Your task to perform on an android device: toggle show notifications on the lock screen Image 0: 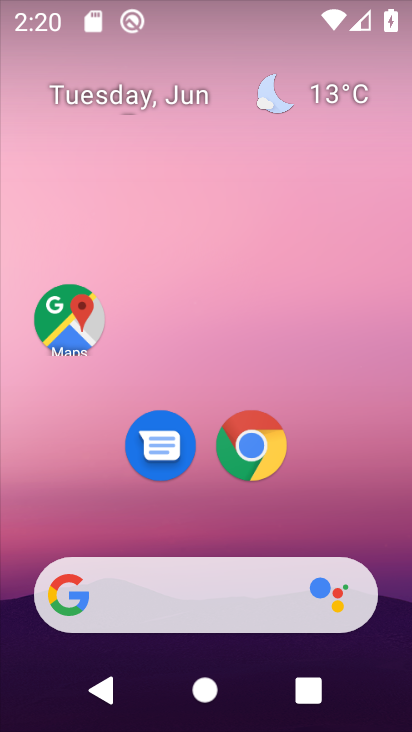
Step 0: drag from (250, 576) to (409, 96)
Your task to perform on an android device: toggle show notifications on the lock screen Image 1: 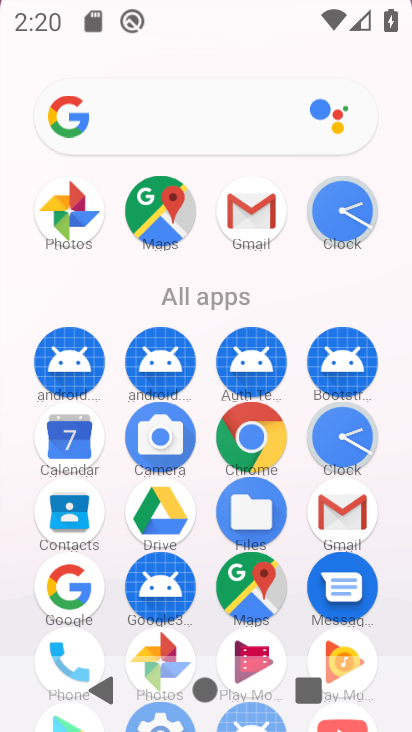
Step 1: drag from (265, 628) to (328, 13)
Your task to perform on an android device: toggle show notifications on the lock screen Image 2: 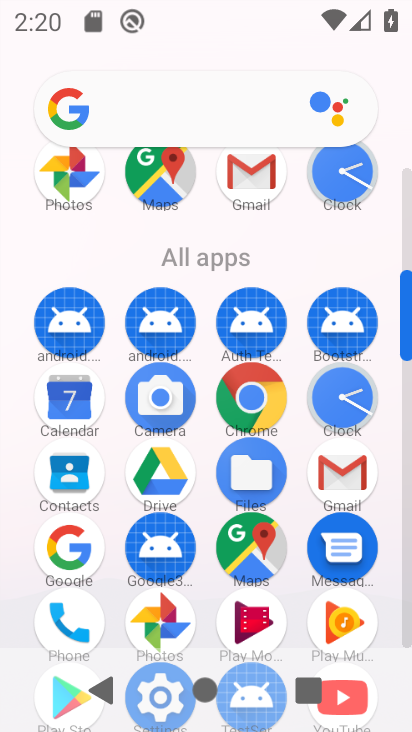
Step 2: drag from (344, 431) to (385, 101)
Your task to perform on an android device: toggle show notifications on the lock screen Image 3: 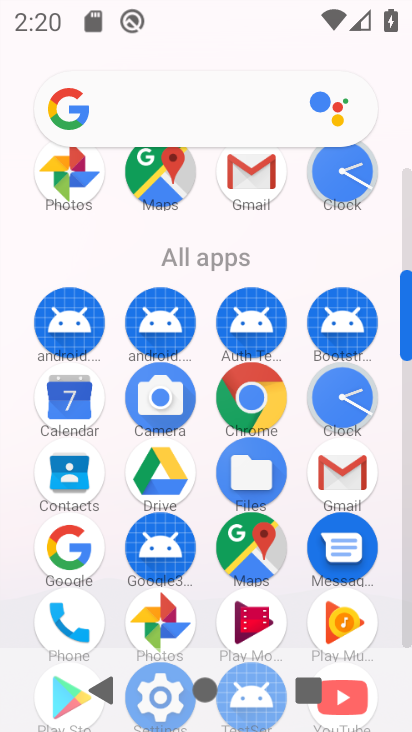
Step 3: drag from (287, 138) to (327, 37)
Your task to perform on an android device: toggle show notifications on the lock screen Image 4: 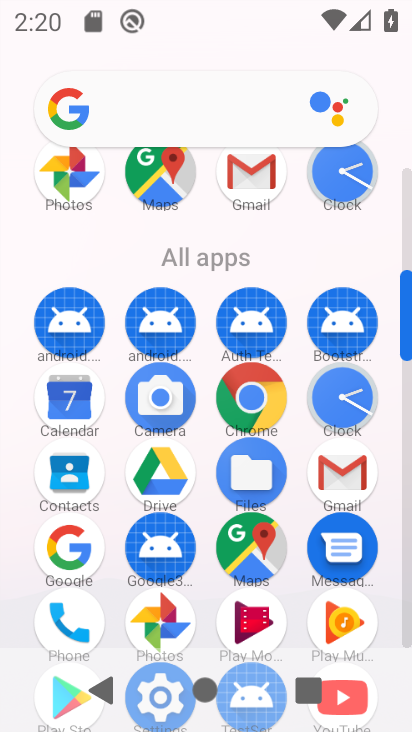
Step 4: click (157, 671)
Your task to perform on an android device: toggle show notifications on the lock screen Image 5: 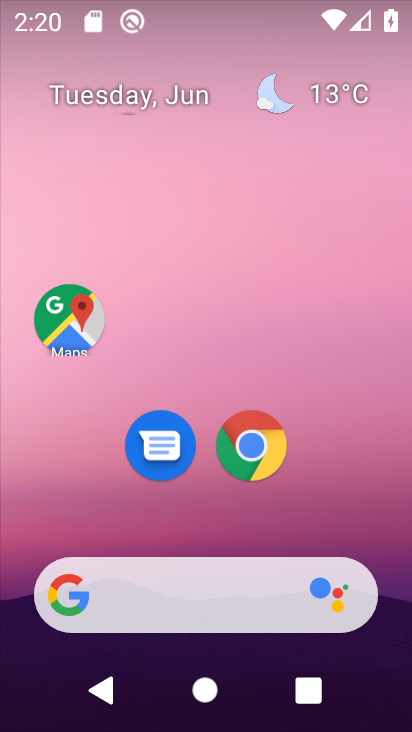
Step 5: drag from (247, 693) to (226, 16)
Your task to perform on an android device: toggle show notifications on the lock screen Image 6: 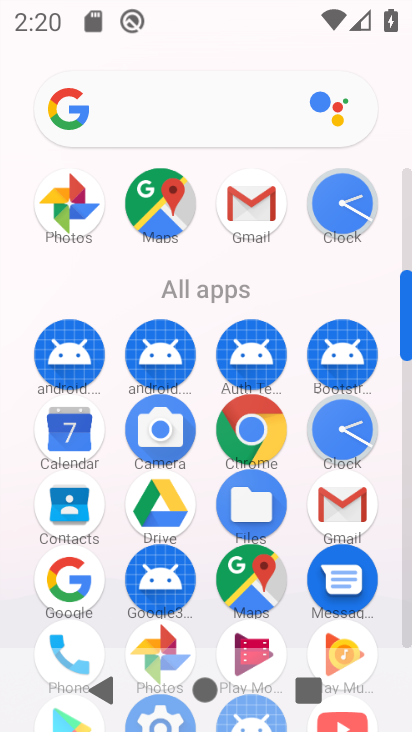
Step 6: drag from (304, 408) to (376, 13)
Your task to perform on an android device: toggle show notifications on the lock screen Image 7: 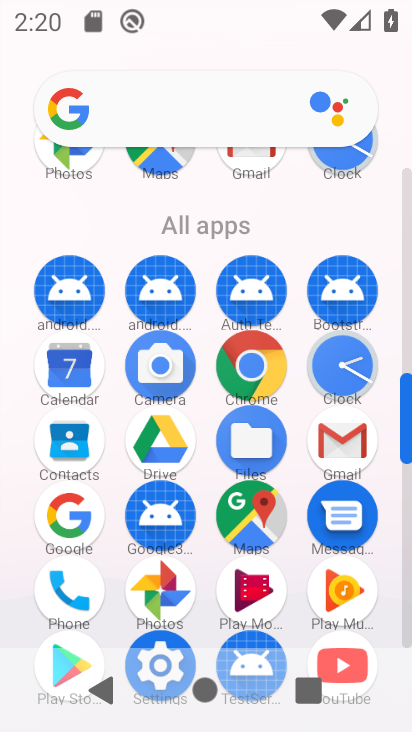
Step 7: click (166, 641)
Your task to perform on an android device: toggle show notifications on the lock screen Image 8: 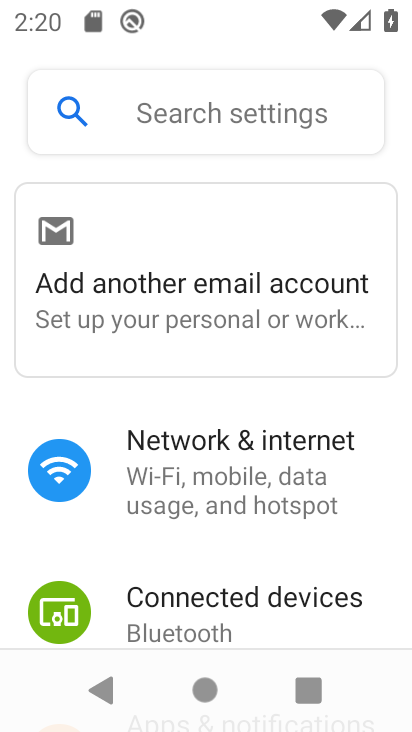
Step 8: drag from (273, 603) to (359, 158)
Your task to perform on an android device: toggle show notifications on the lock screen Image 9: 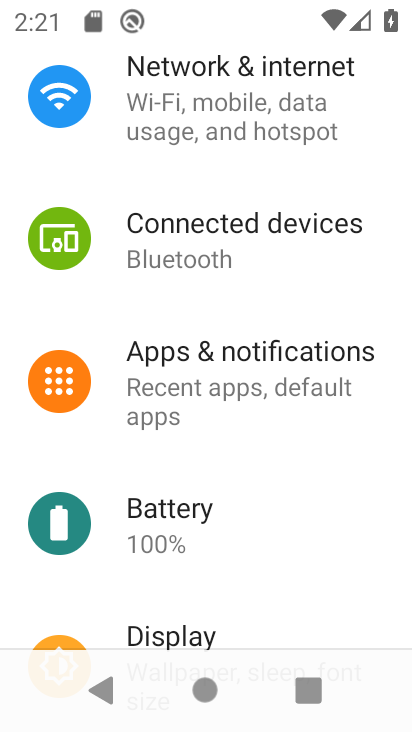
Step 9: click (272, 387)
Your task to perform on an android device: toggle show notifications on the lock screen Image 10: 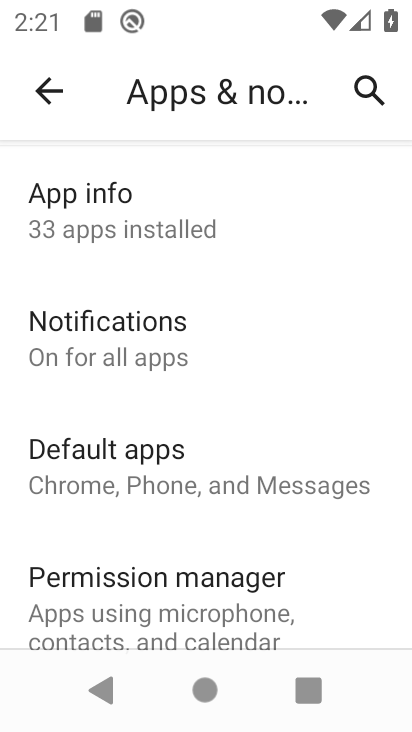
Step 10: drag from (390, 272) to (350, 541)
Your task to perform on an android device: toggle show notifications on the lock screen Image 11: 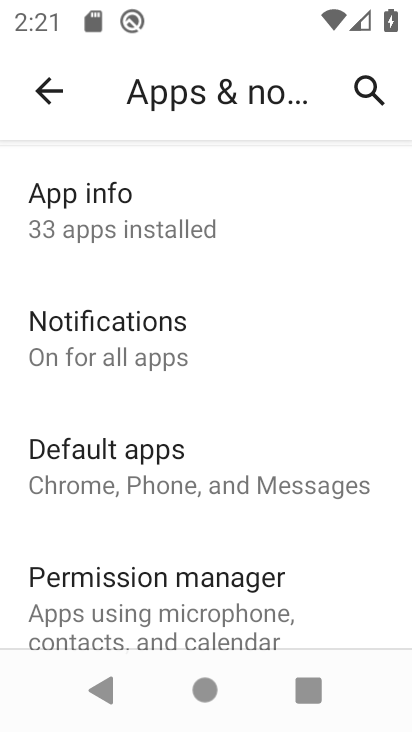
Step 11: drag from (242, 524) to (378, 23)
Your task to perform on an android device: toggle show notifications on the lock screen Image 12: 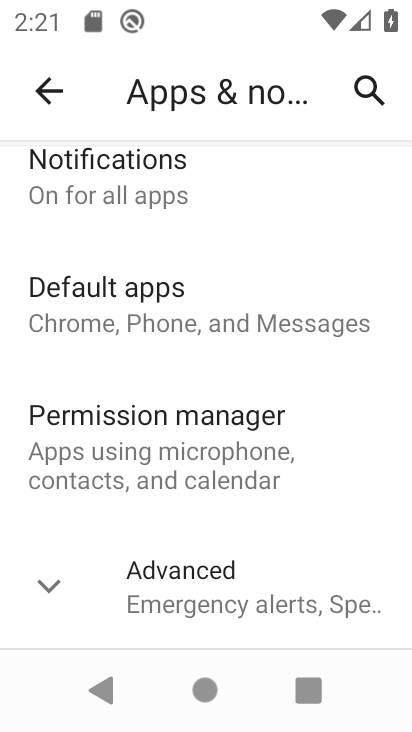
Step 12: click (300, 591)
Your task to perform on an android device: toggle show notifications on the lock screen Image 13: 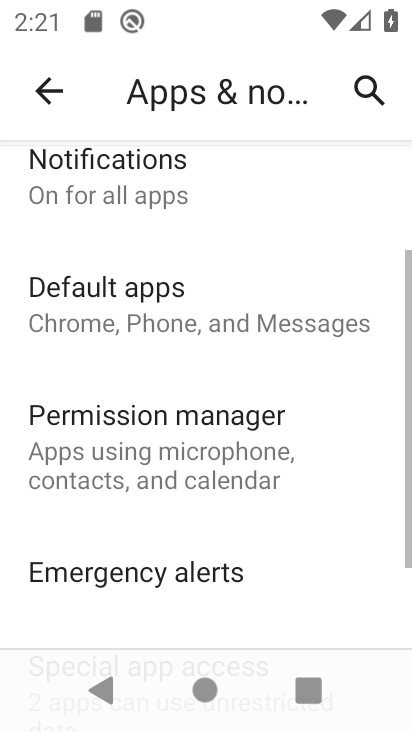
Step 13: drag from (306, 543) to (378, 6)
Your task to perform on an android device: toggle show notifications on the lock screen Image 14: 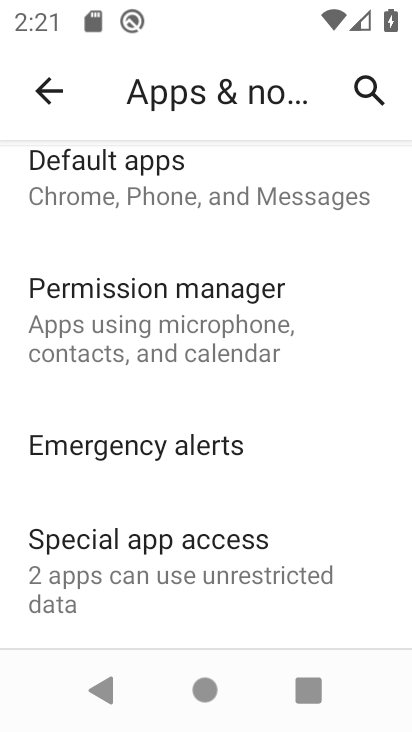
Step 14: drag from (290, 270) to (213, 730)
Your task to perform on an android device: toggle show notifications on the lock screen Image 15: 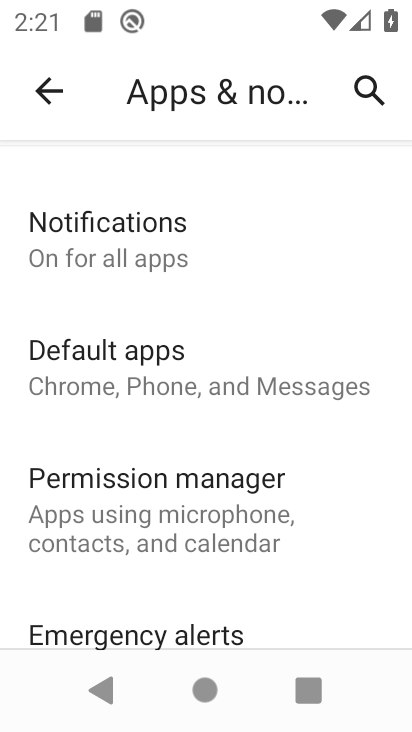
Step 15: click (219, 247)
Your task to perform on an android device: toggle show notifications on the lock screen Image 16: 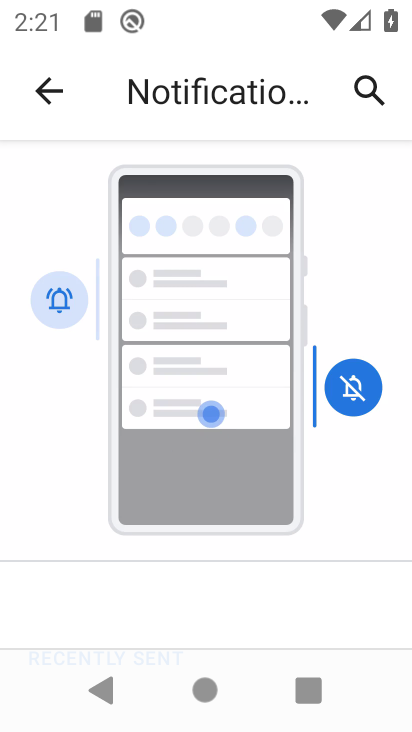
Step 16: drag from (255, 536) to (333, 10)
Your task to perform on an android device: toggle show notifications on the lock screen Image 17: 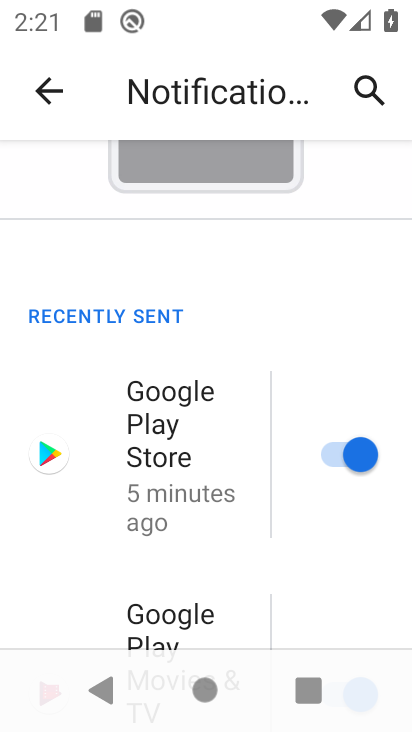
Step 17: drag from (226, 577) to (278, 33)
Your task to perform on an android device: toggle show notifications on the lock screen Image 18: 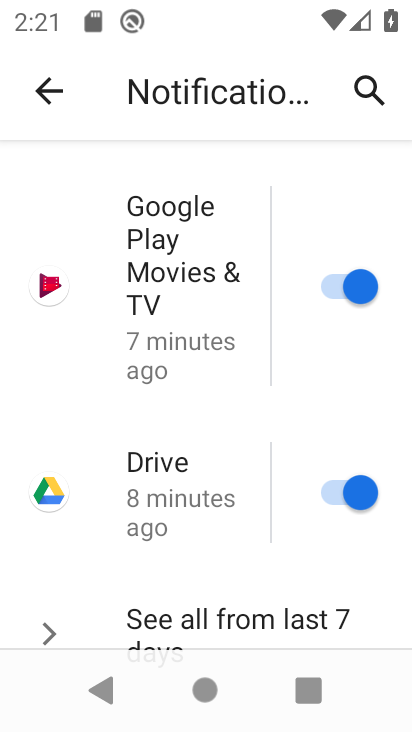
Step 18: drag from (277, 548) to (353, 22)
Your task to perform on an android device: toggle show notifications on the lock screen Image 19: 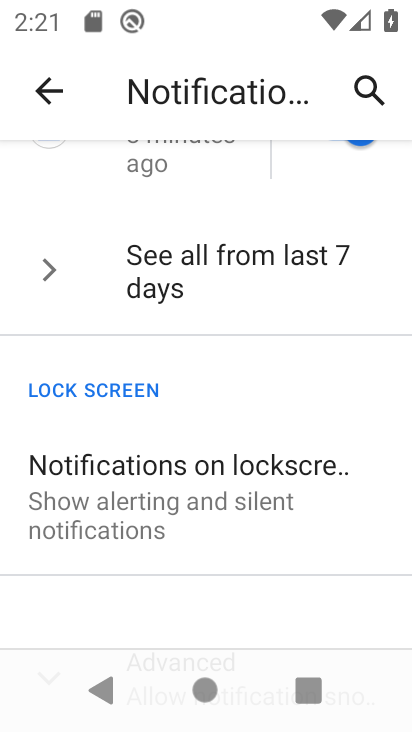
Step 19: click (242, 514)
Your task to perform on an android device: toggle show notifications on the lock screen Image 20: 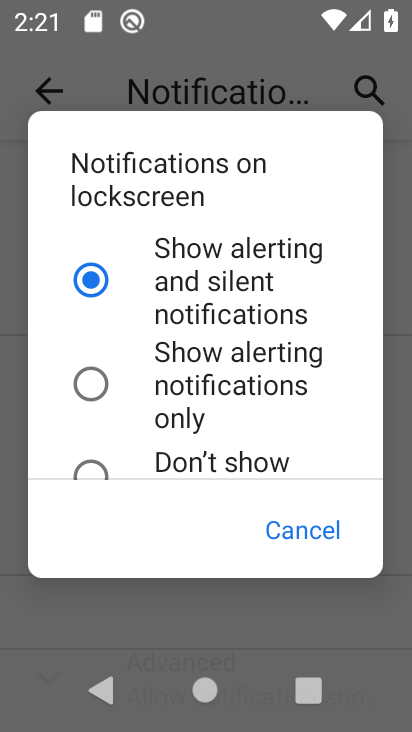
Step 20: drag from (249, 436) to (310, 86)
Your task to perform on an android device: toggle show notifications on the lock screen Image 21: 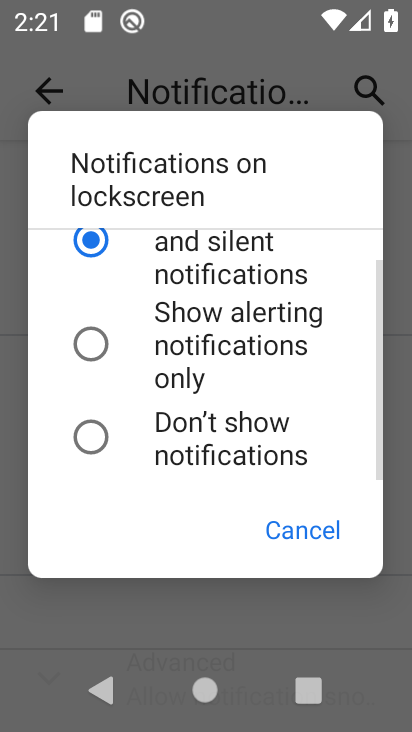
Step 21: click (203, 435)
Your task to perform on an android device: toggle show notifications on the lock screen Image 22: 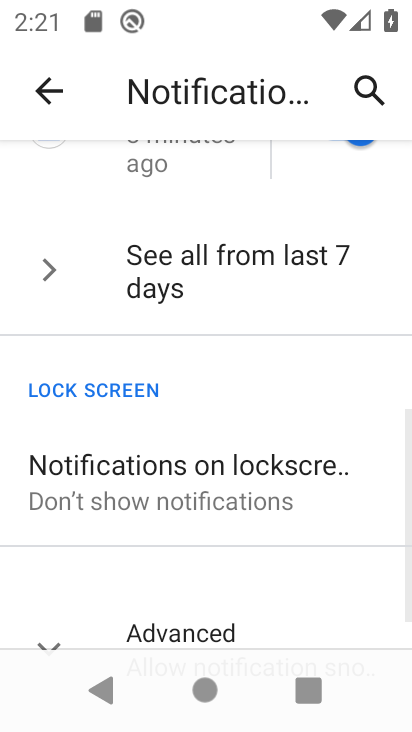
Step 22: task complete